Your task to perform on an android device: Do I have any events this weekend? Image 0: 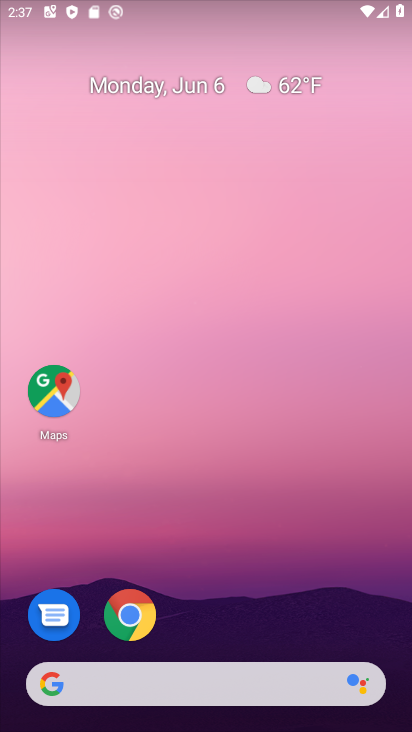
Step 0: click (411, 193)
Your task to perform on an android device: Do I have any events this weekend? Image 1: 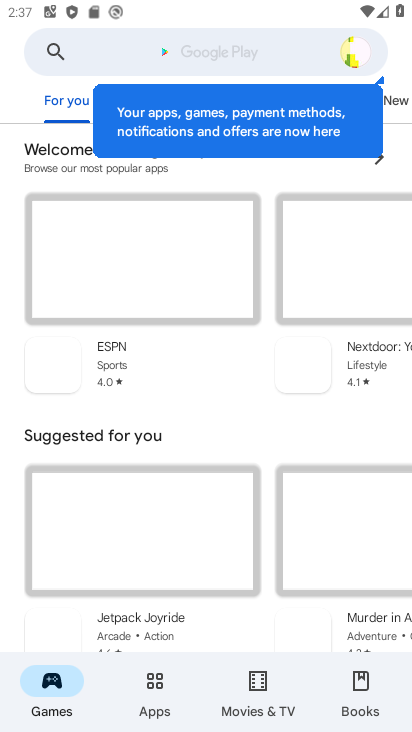
Step 1: press home button
Your task to perform on an android device: Do I have any events this weekend? Image 2: 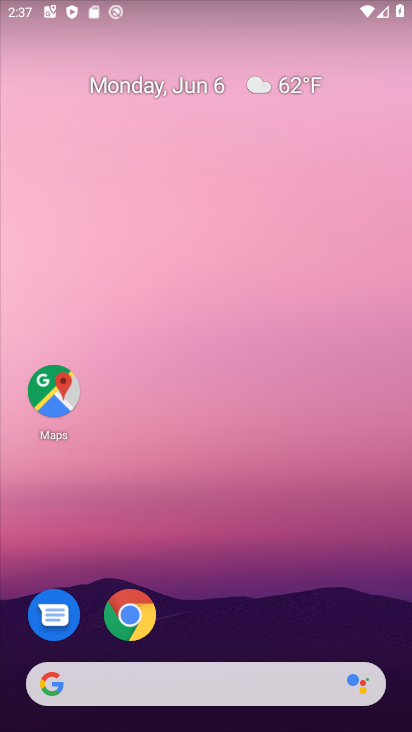
Step 2: drag from (91, 246) to (402, 254)
Your task to perform on an android device: Do I have any events this weekend? Image 3: 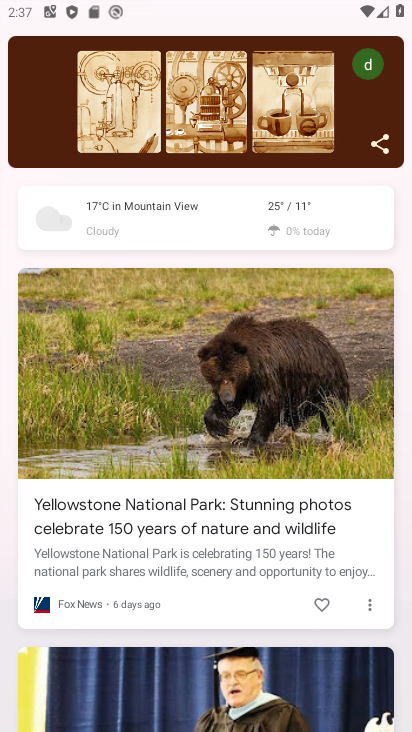
Step 3: click (199, 229)
Your task to perform on an android device: Do I have any events this weekend? Image 4: 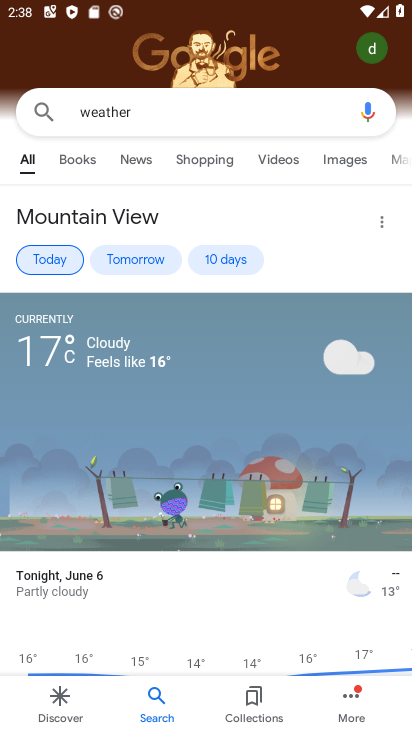
Step 4: click (238, 261)
Your task to perform on an android device: Do I have any events this weekend? Image 5: 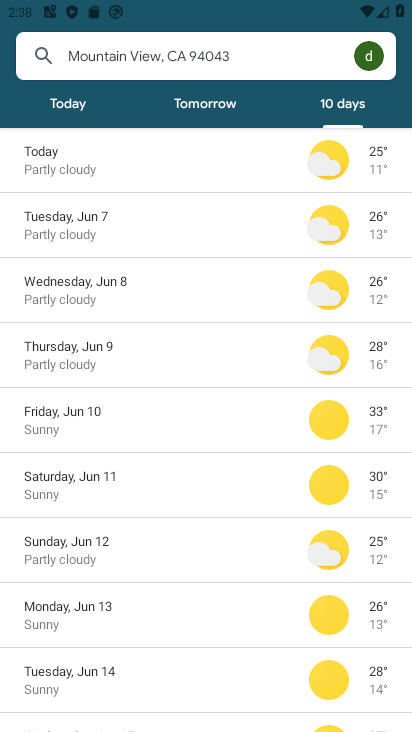
Step 5: task complete